Your task to perform on an android device: Open location settings Image 0: 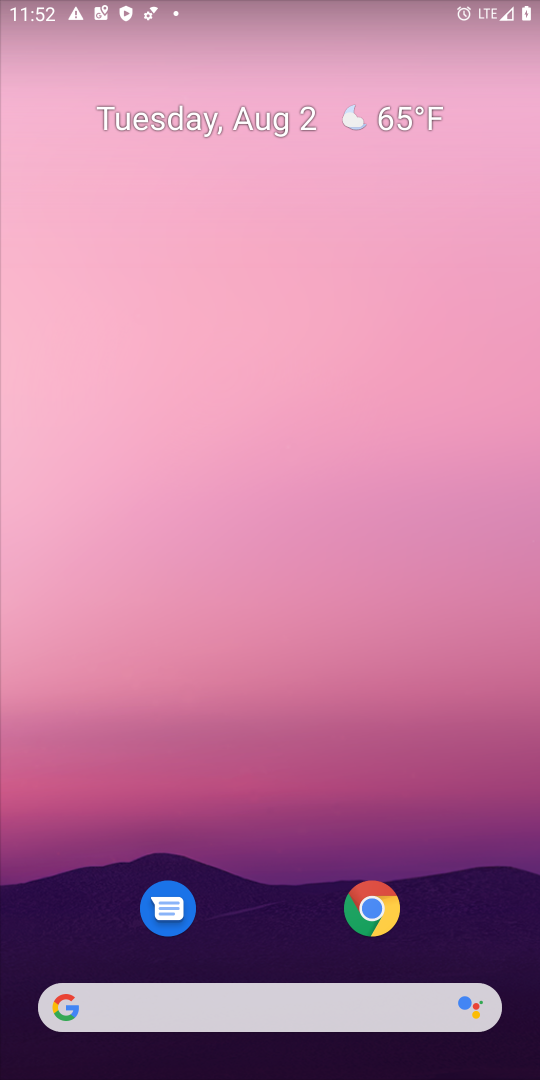
Step 0: drag from (328, 748) to (358, 168)
Your task to perform on an android device: Open location settings Image 1: 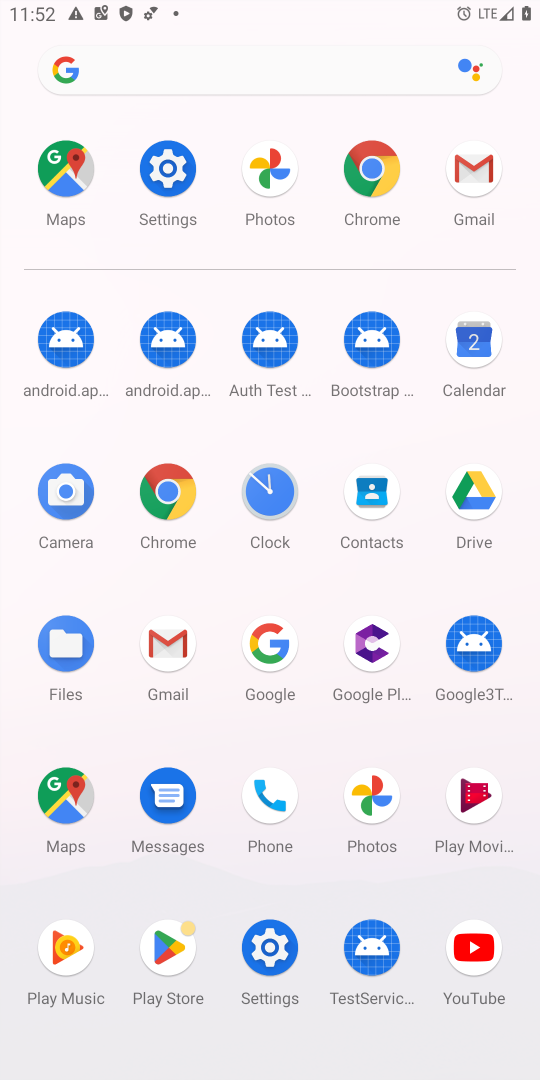
Step 1: click (271, 943)
Your task to perform on an android device: Open location settings Image 2: 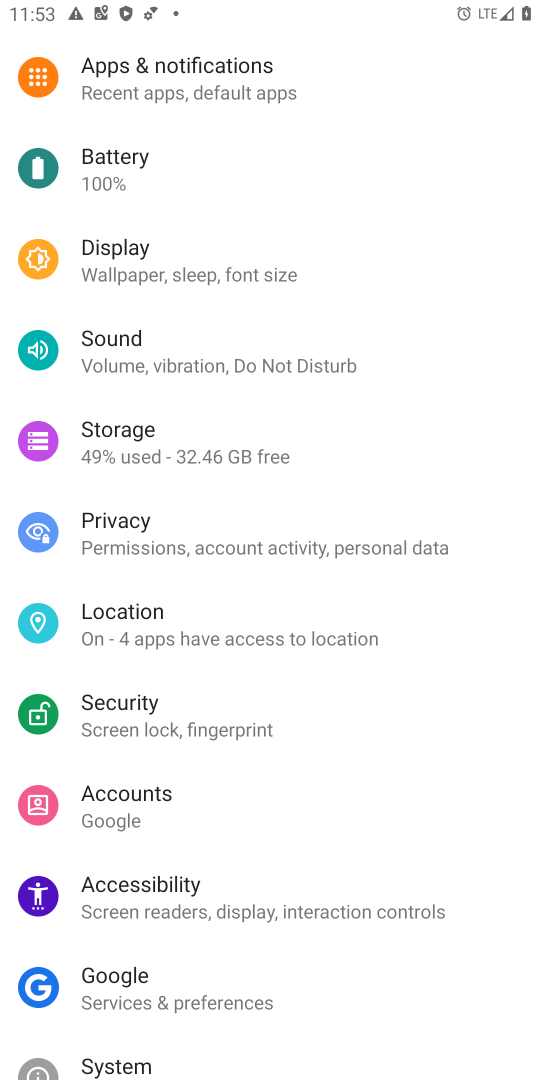
Step 2: click (232, 629)
Your task to perform on an android device: Open location settings Image 3: 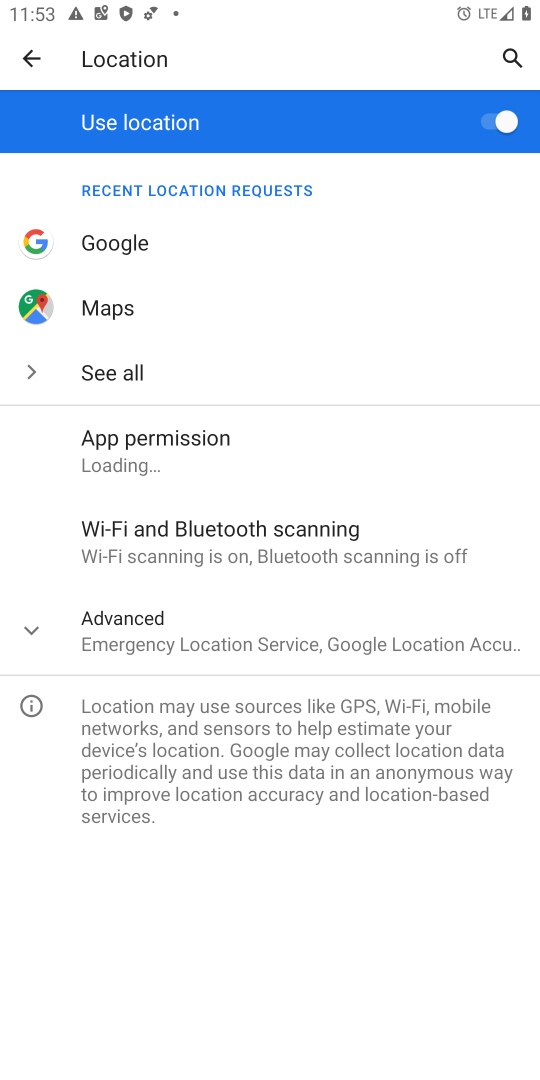
Step 3: task complete